Your task to perform on an android device: delete location history Image 0: 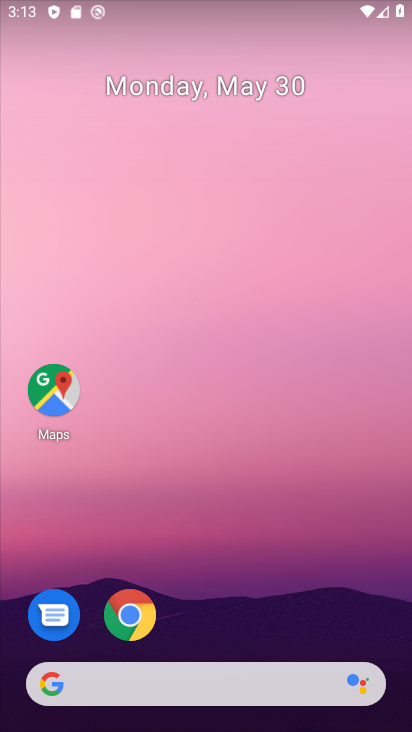
Step 0: drag from (270, 571) to (230, 186)
Your task to perform on an android device: delete location history Image 1: 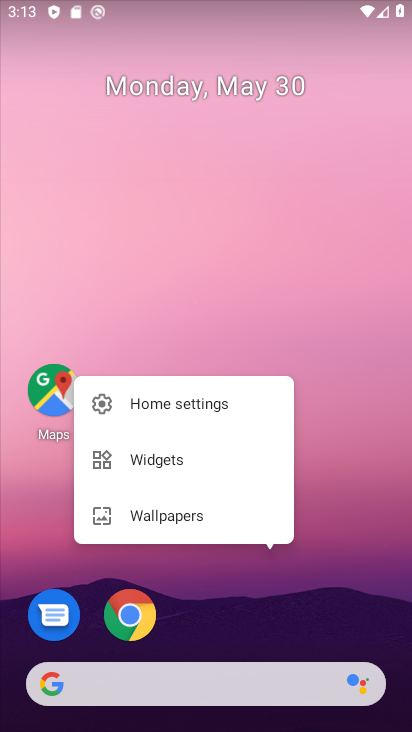
Step 1: drag from (323, 607) to (297, 255)
Your task to perform on an android device: delete location history Image 2: 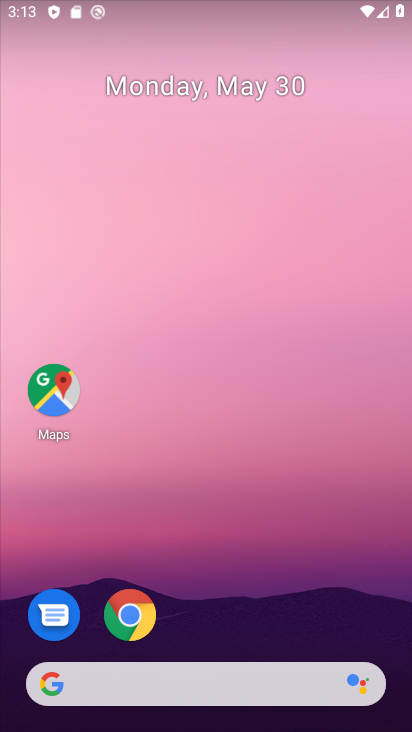
Step 2: drag from (359, 617) to (323, 161)
Your task to perform on an android device: delete location history Image 3: 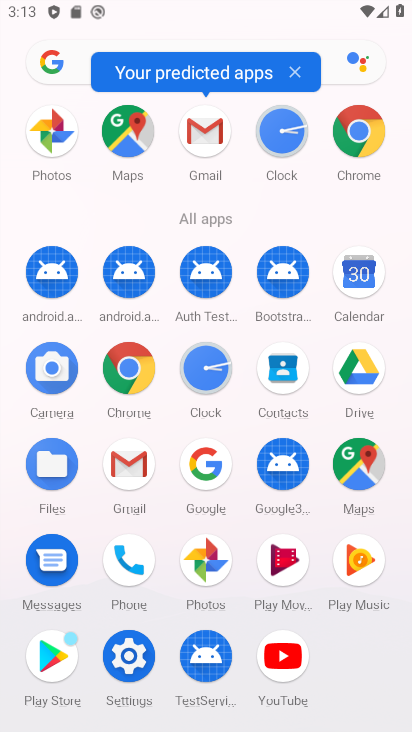
Step 3: click (123, 672)
Your task to perform on an android device: delete location history Image 4: 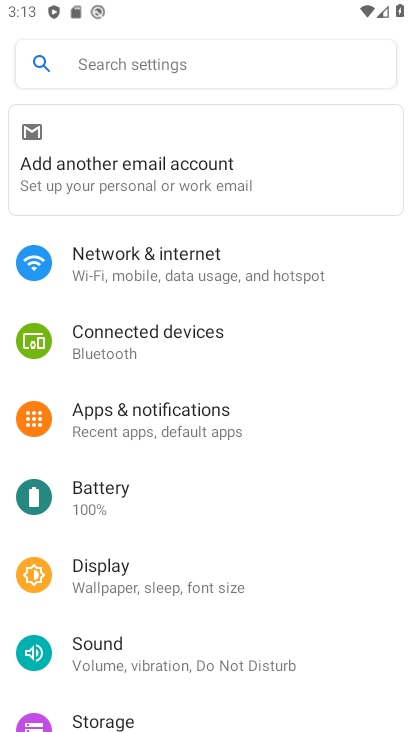
Step 4: drag from (220, 628) to (216, 403)
Your task to perform on an android device: delete location history Image 5: 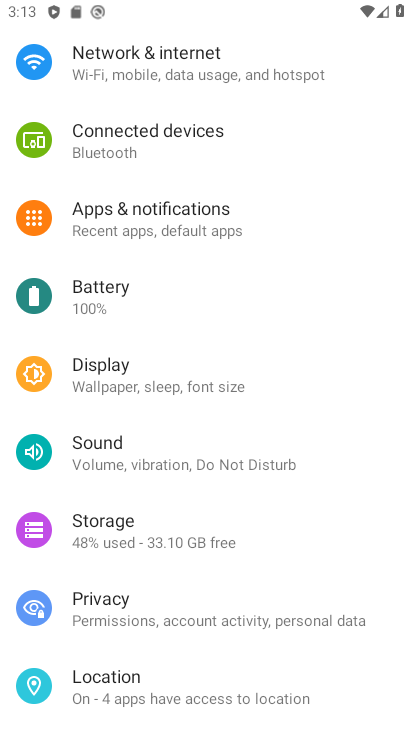
Step 5: click (181, 679)
Your task to perform on an android device: delete location history Image 6: 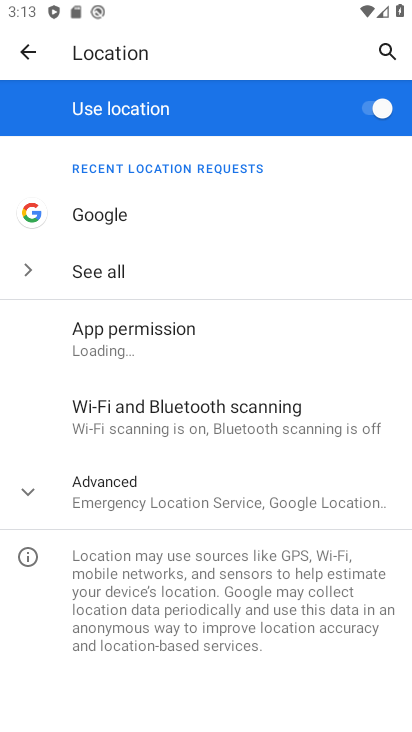
Step 6: click (124, 505)
Your task to perform on an android device: delete location history Image 7: 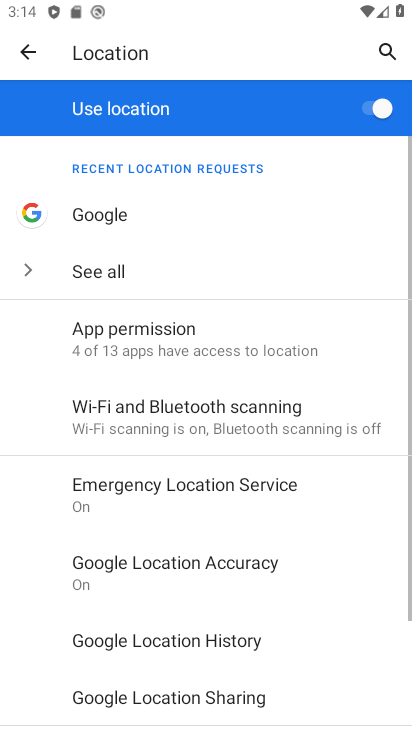
Step 7: click (215, 645)
Your task to perform on an android device: delete location history Image 8: 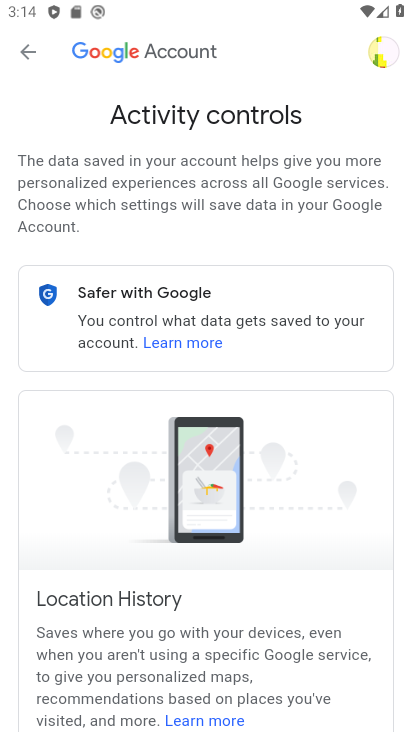
Step 8: drag from (263, 655) to (267, 462)
Your task to perform on an android device: delete location history Image 9: 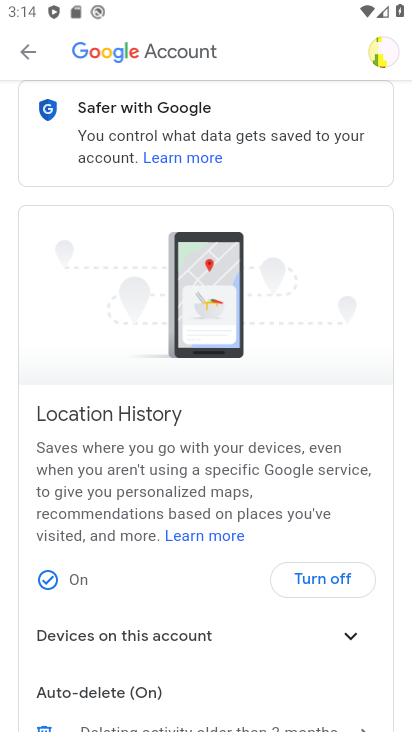
Step 9: drag from (176, 655) to (202, 521)
Your task to perform on an android device: delete location history Image 10: 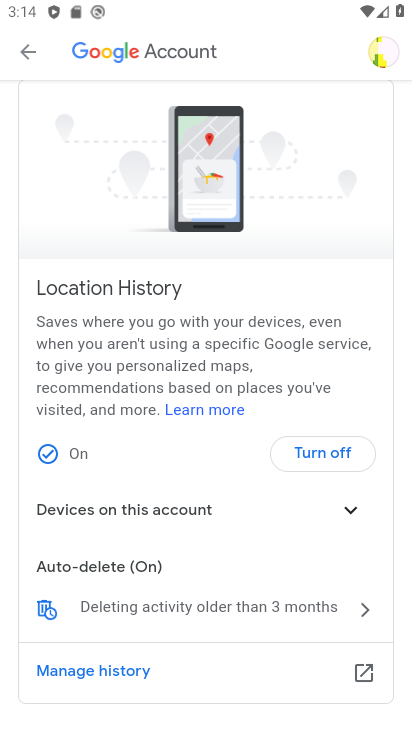
Step 10: click (214, 600)
Your task to perform on an android device: delete location history Image 11: 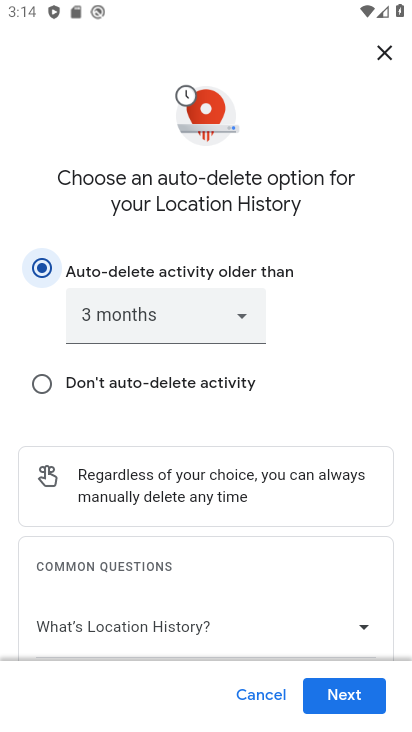
Step 11: click (337, 690)
Your task to perform on an android device: delete location history Image 12: 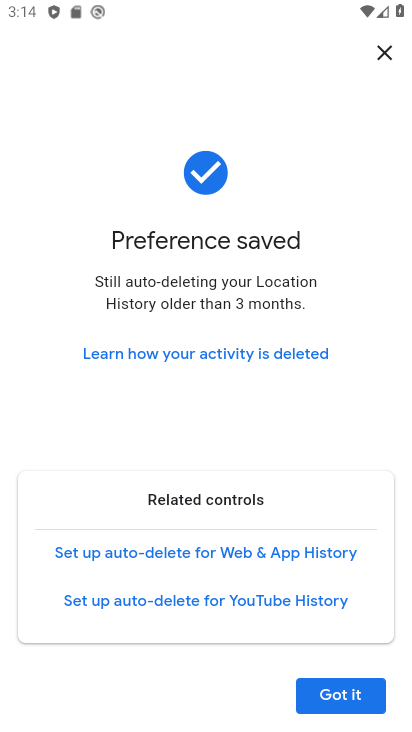
Step 12: task complete